Your task to perform on an android device: show emergency info Image 0: 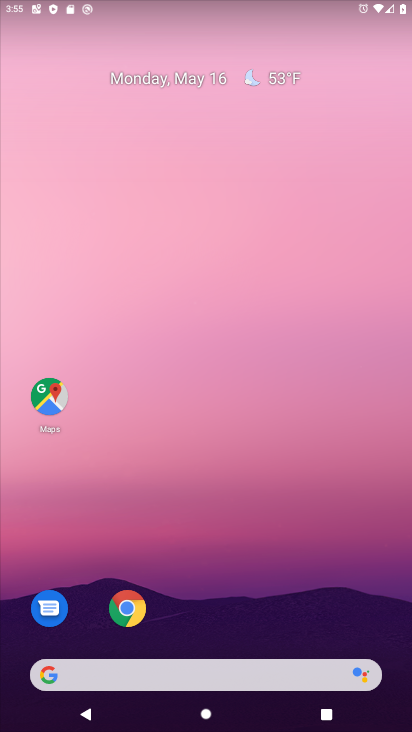
Step 0: drag from (246, 607) to (201, 32)
Your task to perform on an android device: show emergency info Image 1: 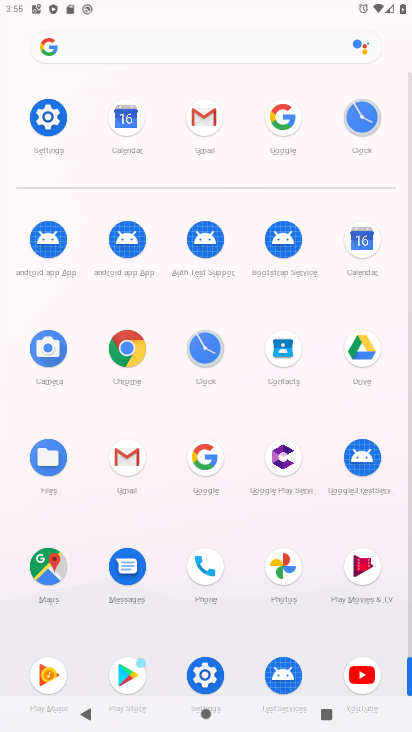
Step 1: click (48, 115)
Your task to perform on an android device: show emergency info Image 2: 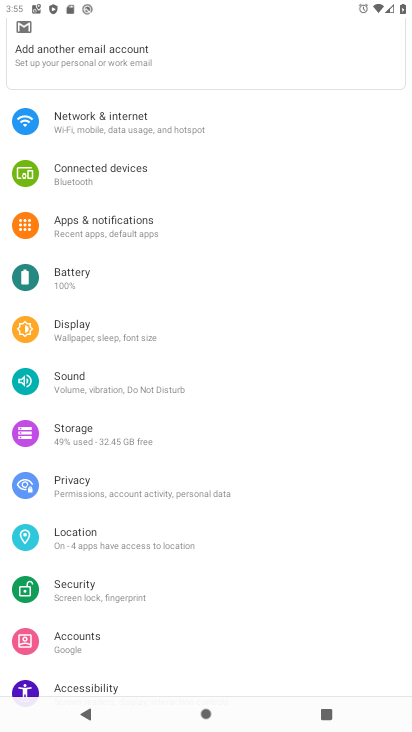
Step 2: drag from (135, 582) to (189, 445)
Your task to perform on an android device: show emergency info Image 3: 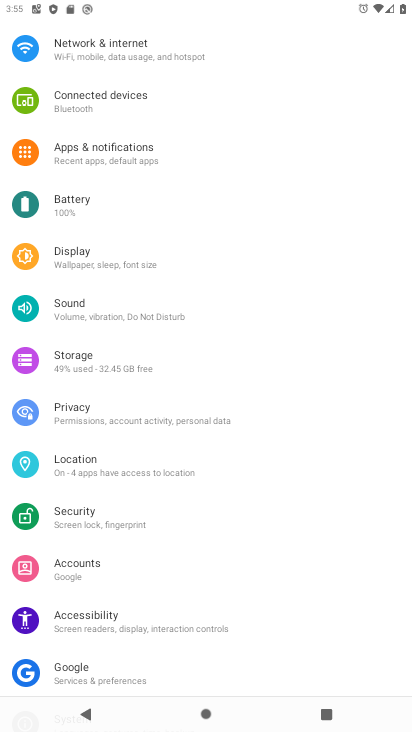
Step 3: drag from (159, 603) to (211, 485)
Your task to perform on an android device: show emergency info Image 4: 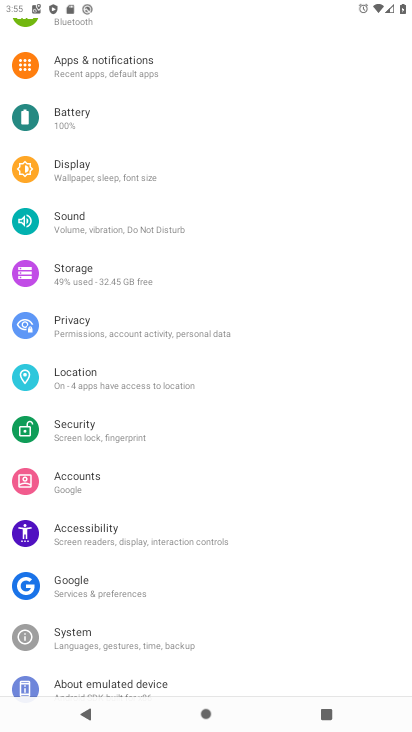
Step 4: drag from (122, 617) to (210, 512)
Your task to perform on an android device: show emergency info Image 5: 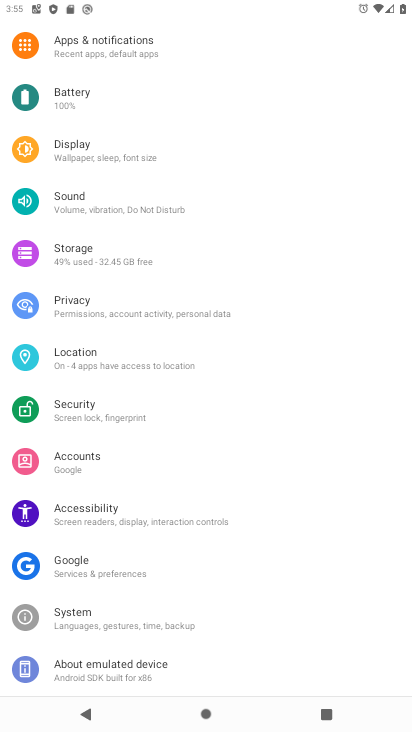
Step 5: click (140, 659)
Your task to perform on an android device: show emergency info Image 6: 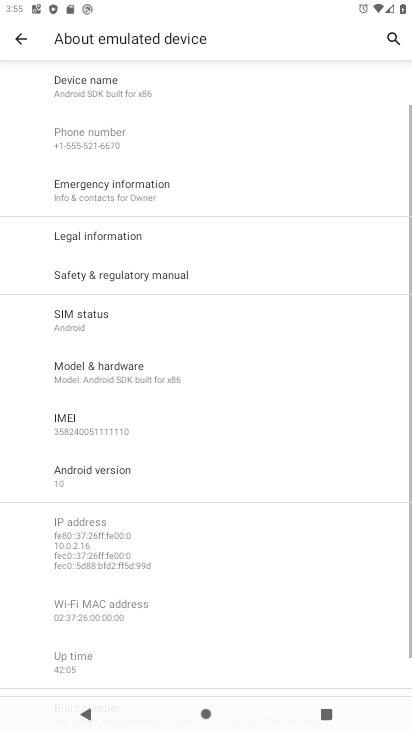
Step 6: click (156, 180)
Your task to perform on an android device: show emergency info Image 7: 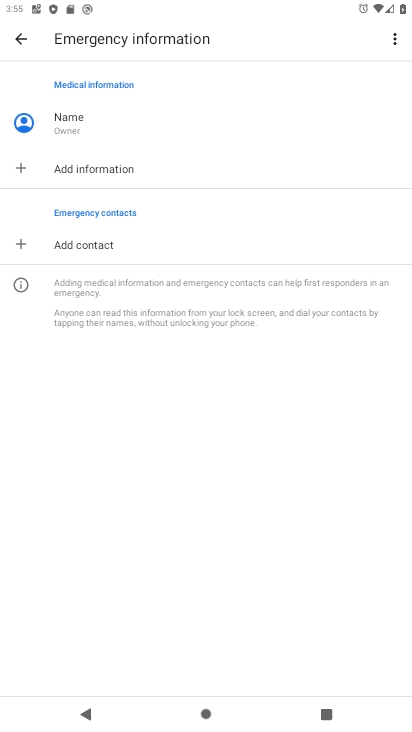
Step 7: task complete